Your task to perform on an android device: Show me popular videos on Youtube Image 0: 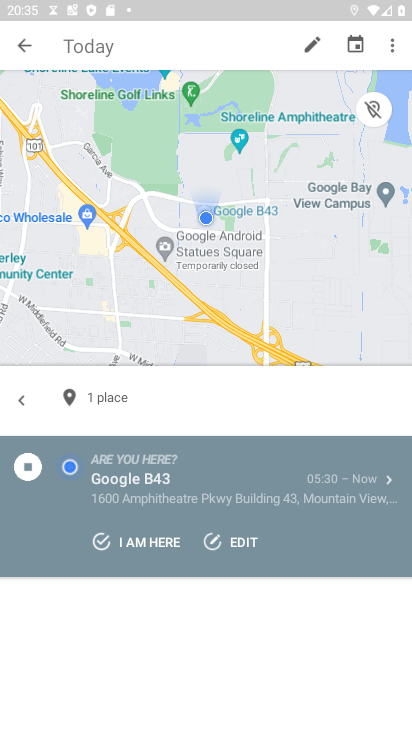
Step 0: press home button
Your task to perform on an android device: Show me popular videos on Youtube Image 1: 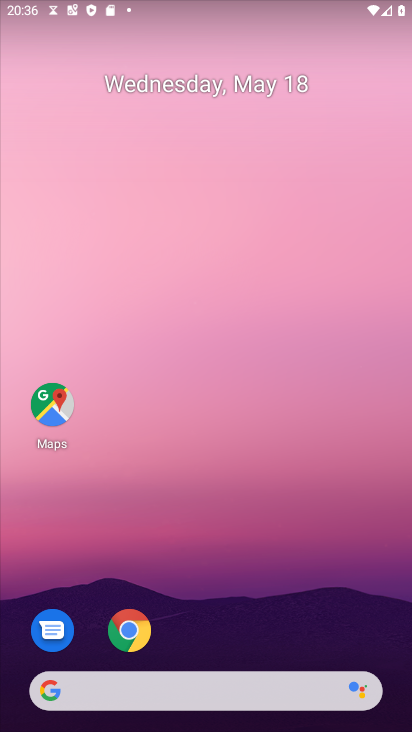
Step 1: drag from (206, 689) to (341, 159)
Your task to perform on an android device: Show me popular videos on Youtube Image 2: 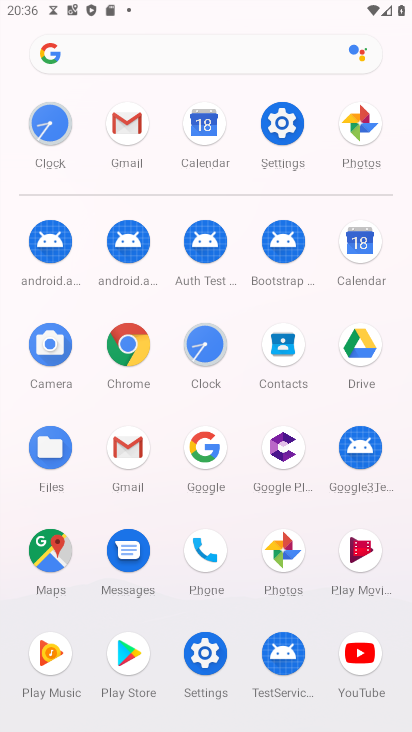
Step 2: click (365, 660)
Your task to perform on an android device: Show me popular videos on Youtube Image 3: 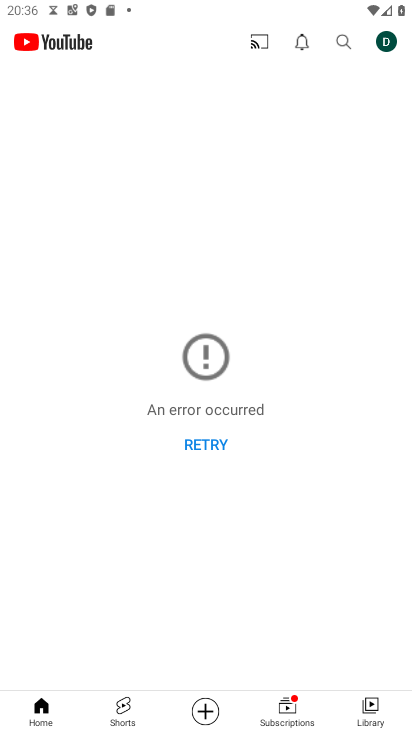
Step 3: click (214, 441)
Your task to perform on an android device: Show me popular videos on Youtube Image 4: 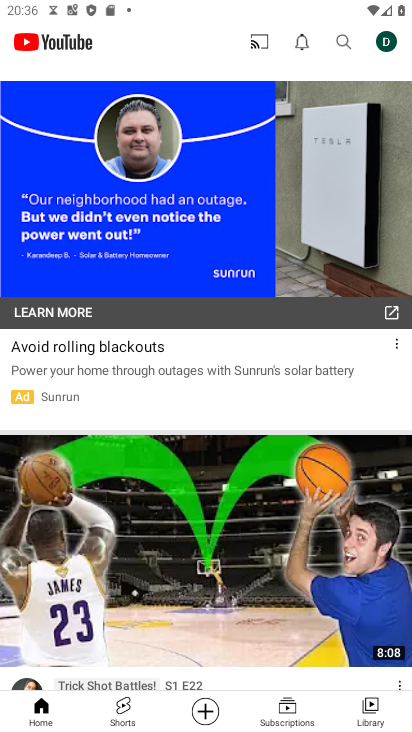
Step 4: task complete